Your task to perform on an android device: Show me the alarms in the clock app Image 0: 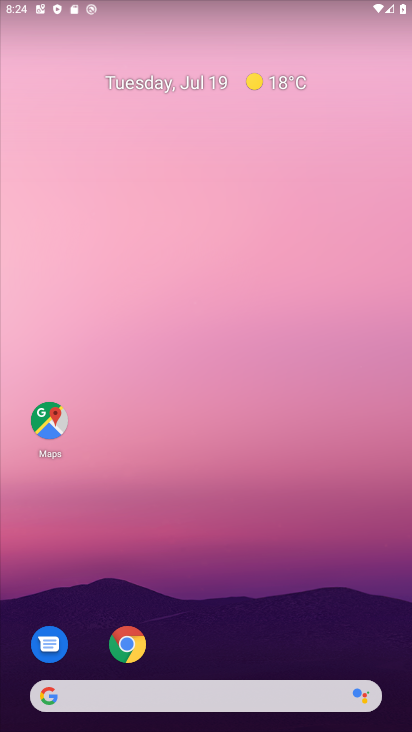
Step 0: drag from (209, 730) to (258, 180)
Your task to perform on an android device: Show me the alarms in the clock app Image 1: 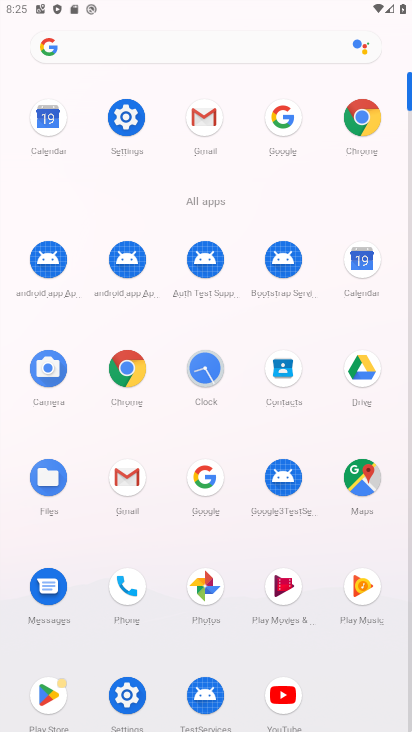
Step 1: click (199, 377)
Your task to perform on an android device: Show me the alarms in the clock app Image 2: 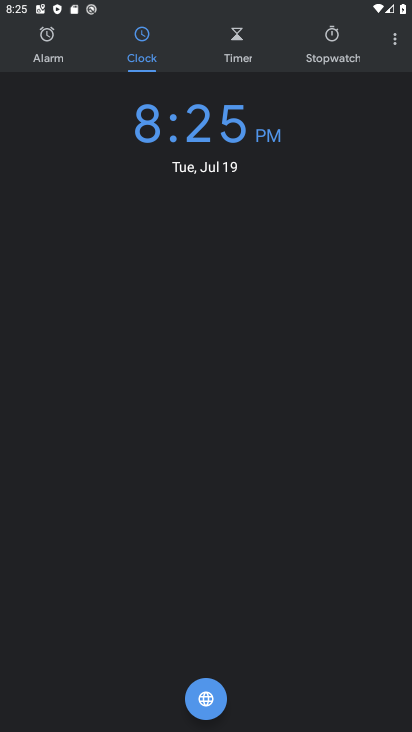
Step 2: click (51, 55)
Your task to perform on an android device: Show me the alarms in the clock app Image 3: 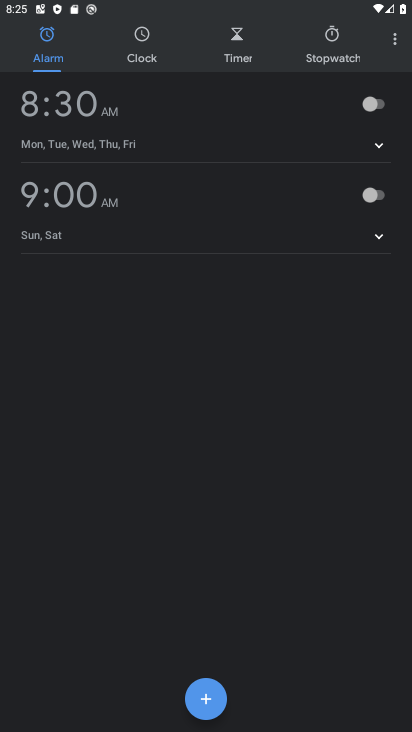
Step 3: task complete